Your task to perform on an android device: turn pop-ups off in chrome Image 0: 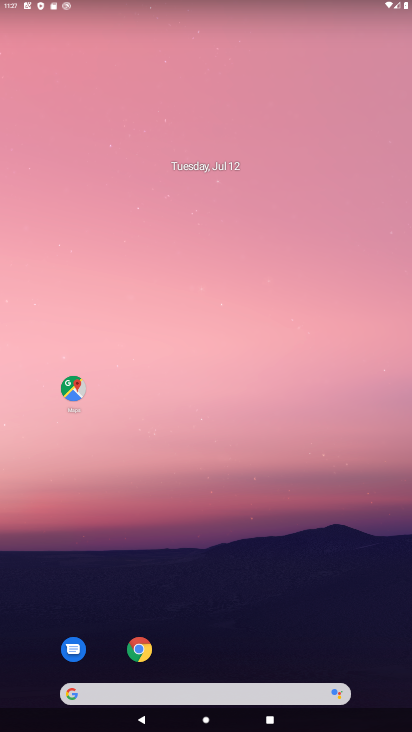
Step 0: press home button
Your task to perform on an android device: turn pop-ups off in chrome Image 1: 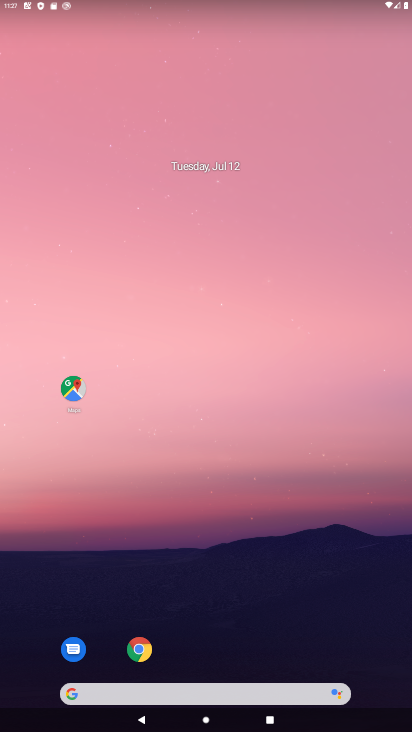
Step 1: drag from (263, 673) to (254, 48)
Your task to perform on an android device: turn pop-ups off in chrome Image 2: 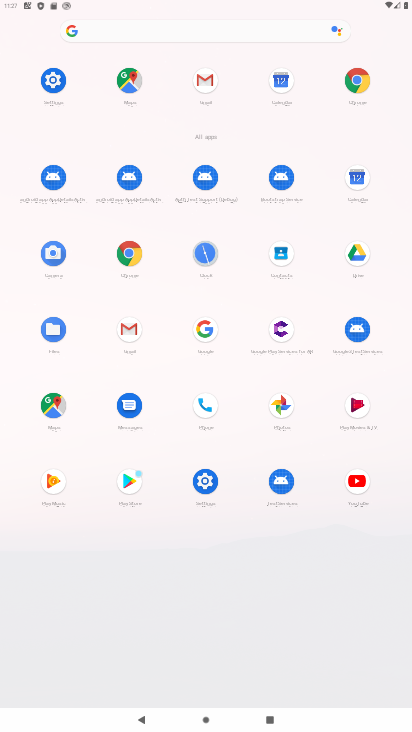
Step 2: click (137, 241)
Your task to perform on an android device: turn pop-ups off in chrome Image 3: 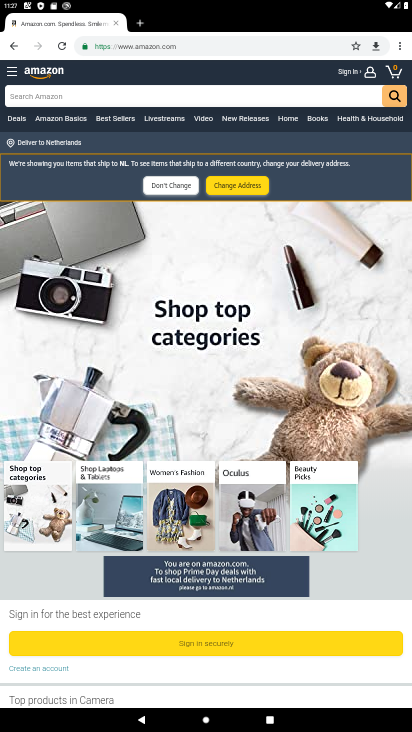
Step 3: drag from (396, 40) to (290, 306)
Your task to perform on an android device: turn pop-ups off in chrome Image 4: 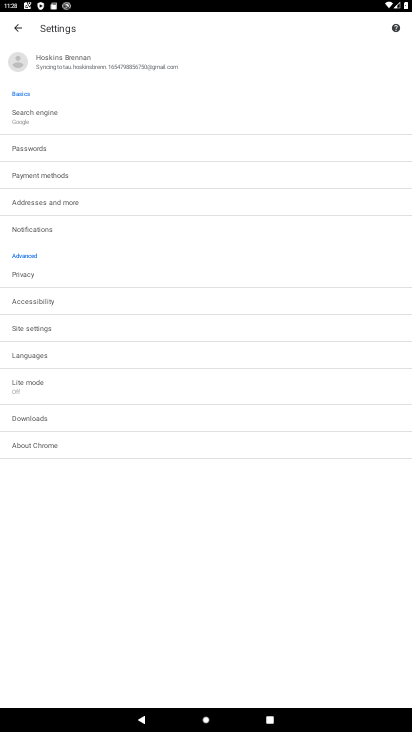
Step 4: click (29, 326)
Your task to perform on an android device: turn pop-ups off in chrome Image 5: 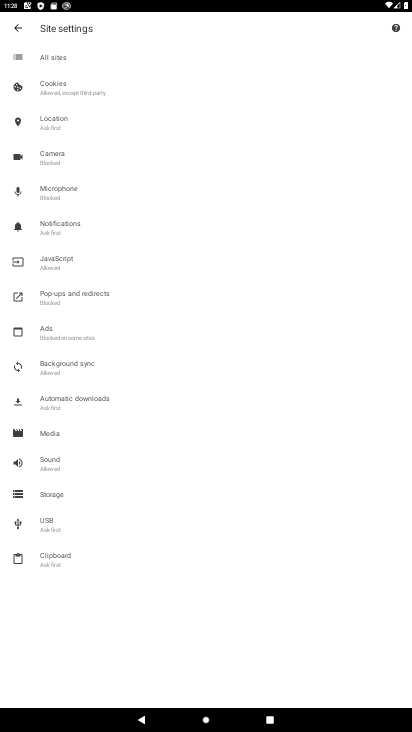
Step 5: click (43, 302)
Your task to perform on an android device: turn pop-ups off in chrome Image 6: 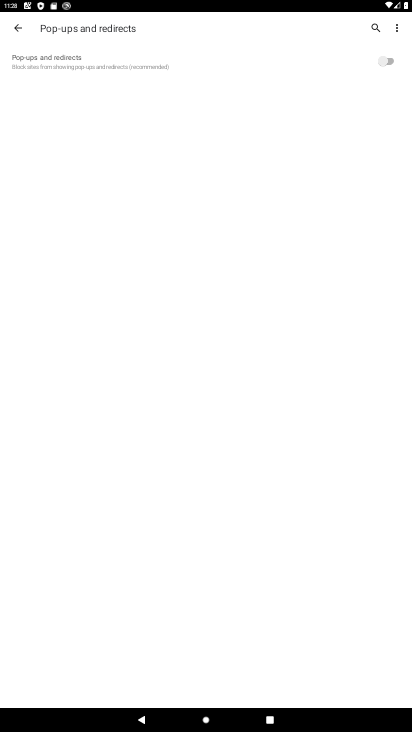
Step 6: task complete